Your task to perform on an android device: turn on showing notifications on the lock screen Image 0: 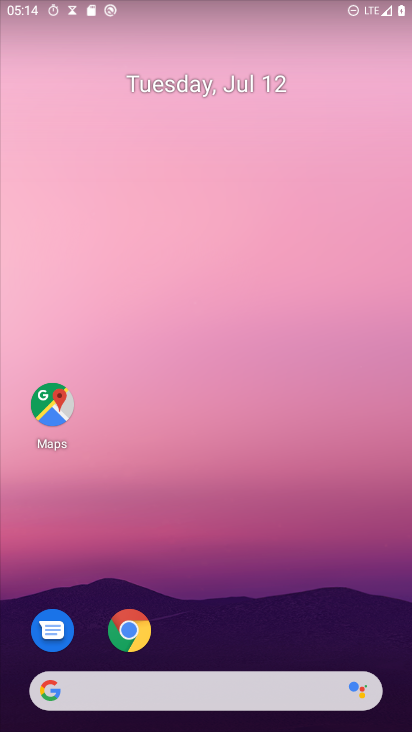
Step 0: drag from (324, 686) to (347, 10)
Your task to perform on an android device: turn on showing notifications on the lock screen Image 1: 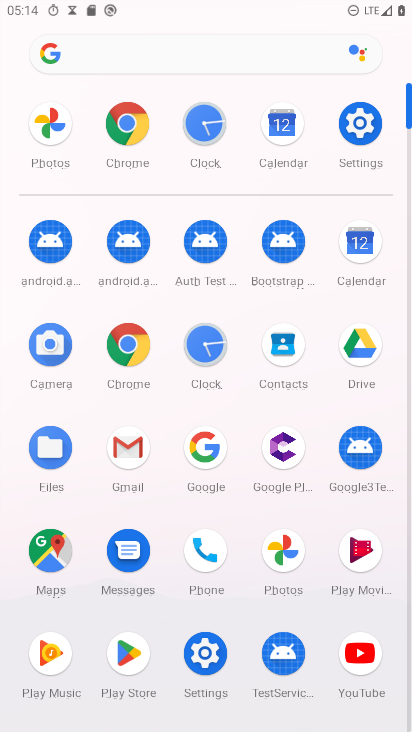
Step 1: click (368, 118)
Your task to perform on an android device: turn on showing notifications on the lock screen Image 2: 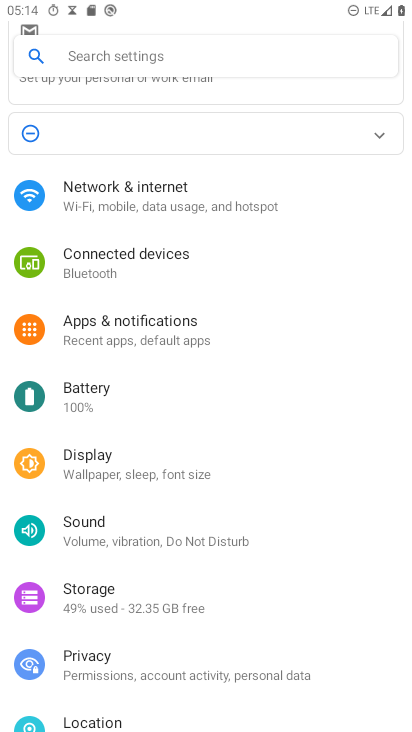
Step 2: click (101, 328)
Your task to perform on an android device: turn on showing notifications on the lock screen Image 3: 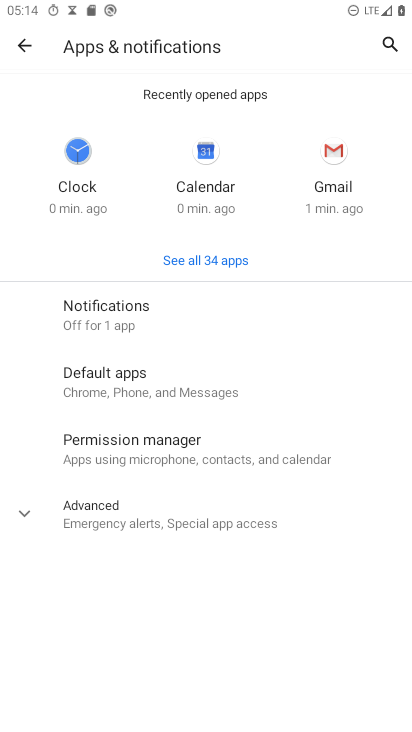
Step 3: click (141, 323)
Your task to perform on an android device: turn on showing notifications on the lock screen Image 4: 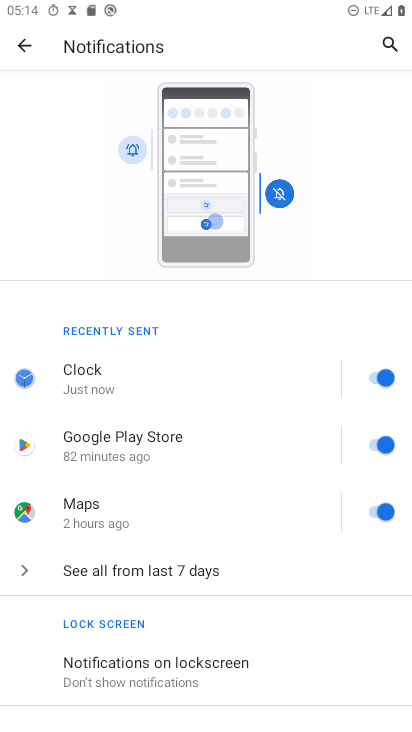
Step 4: click (163, 669)
Your task to perform on an android device: turn on showing notifications on the lock screen Image 5: 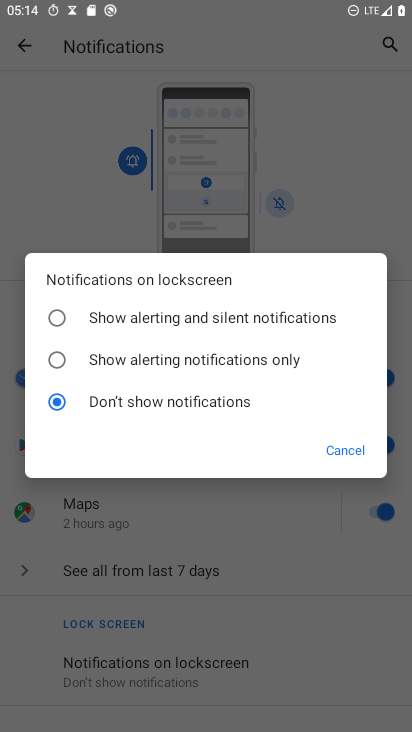
Step 5: click (61, 311)
Your task to perform on an android device: turn on showing notifications on the lock screen Image 6: 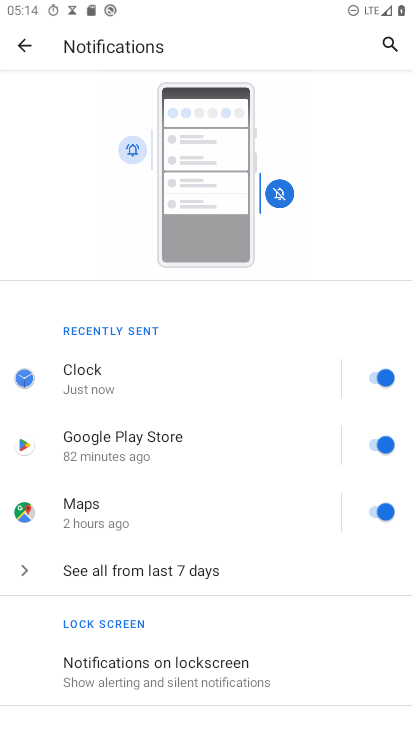
Step 6: task complete